Your task to perform on an android device: set the stopwatch Image 0: 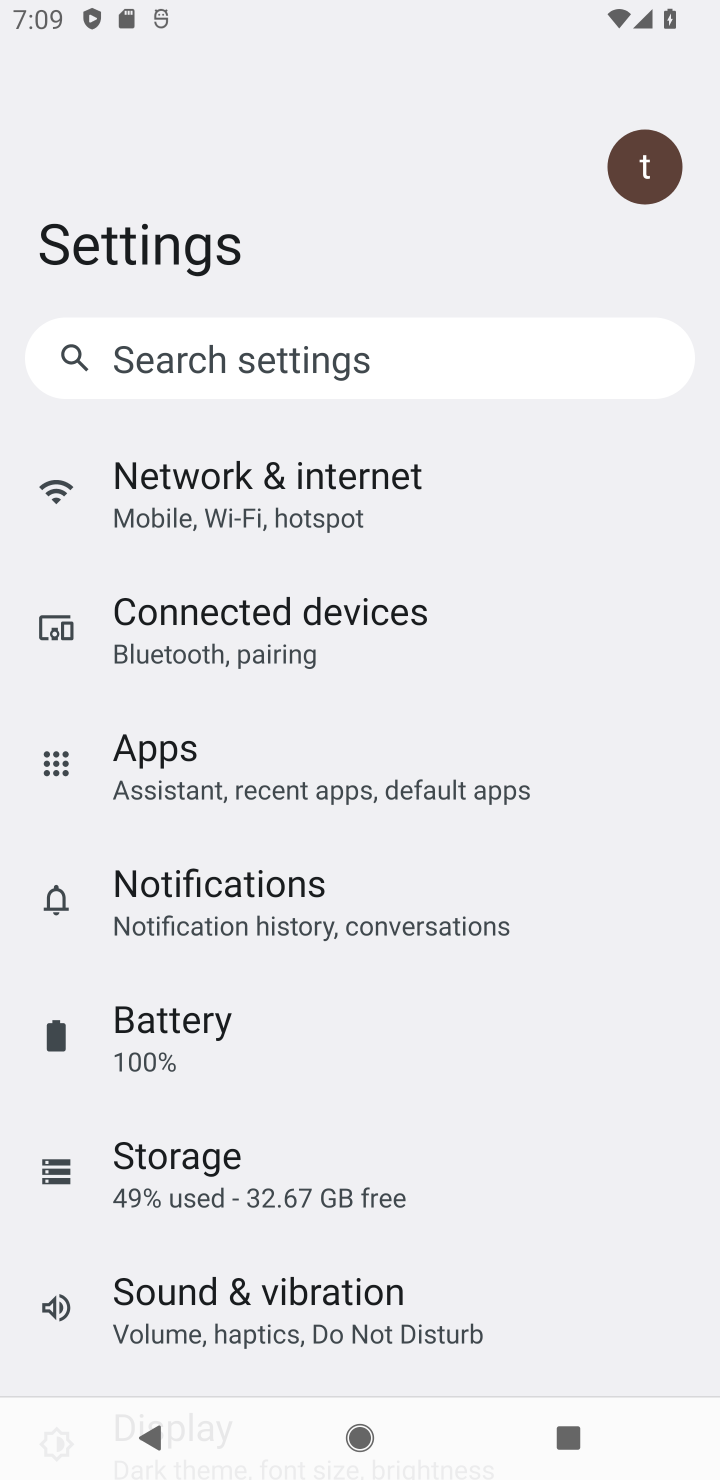
Step 0: press home button
Your task to perform on an android device: set the stopwatch Image 1: 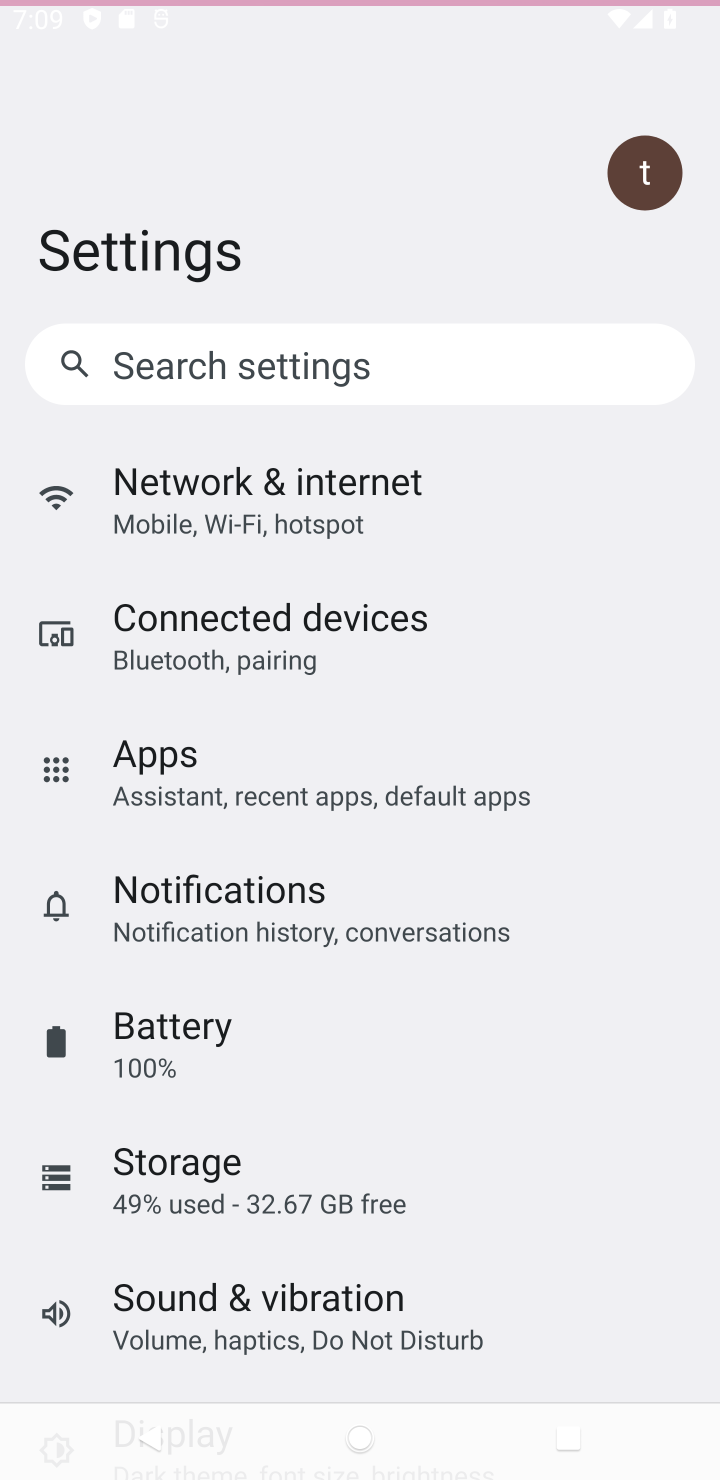
Step 1: drag from (504, 1191) to (482, 337)
Your task to perform on an android device: set the stopwatch Image 2: 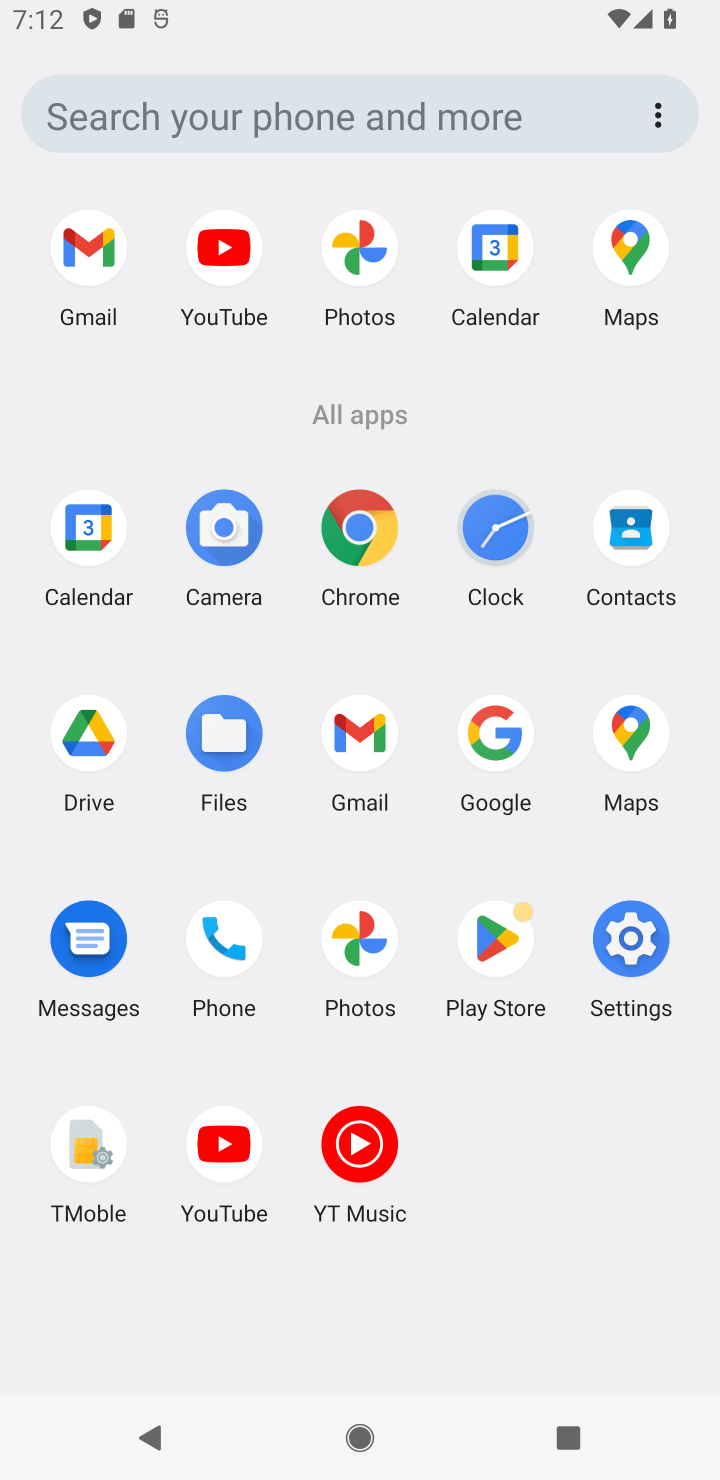
Step 2: click (482, 573)
Your task to perform on an android device: set the stopwatch Image 3: 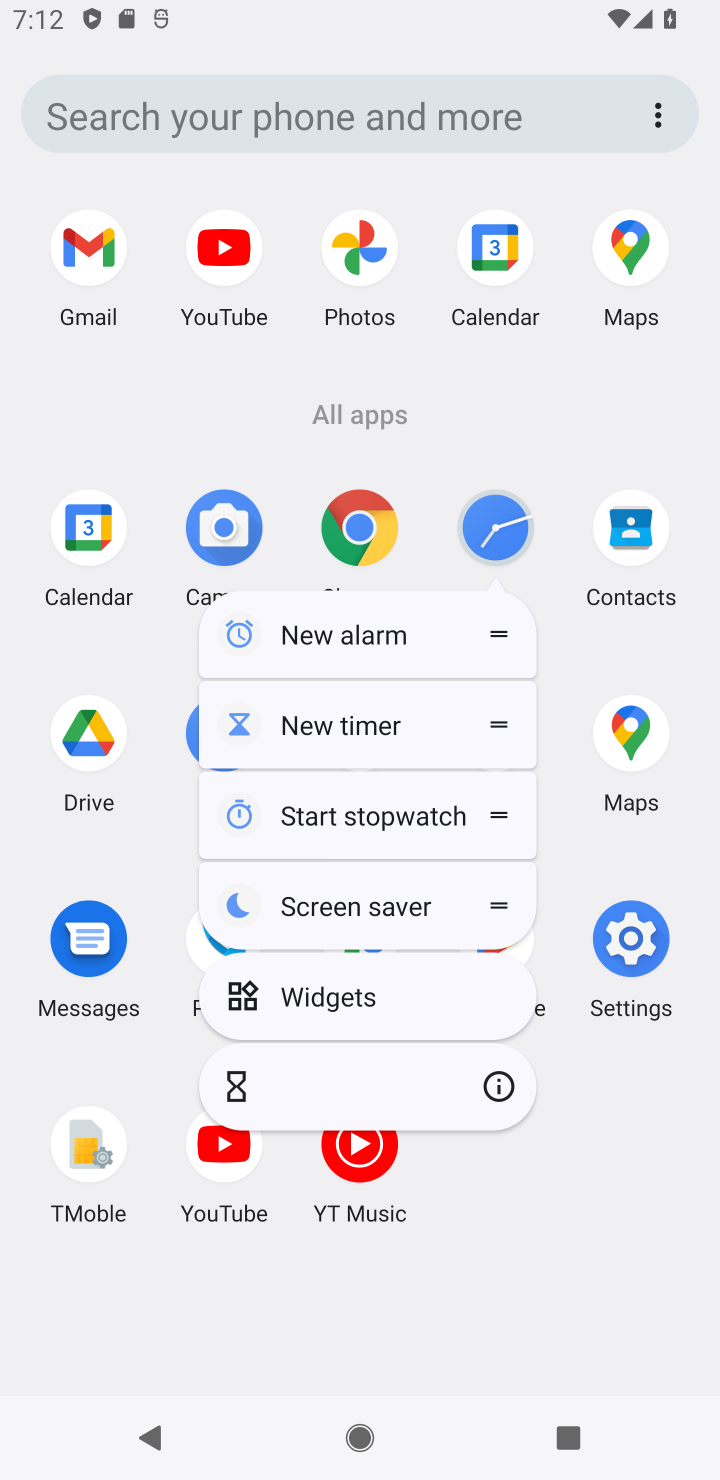
Step 3: click (504, 535)
Your task to perform on an android device: set the stopwatch Image 4: 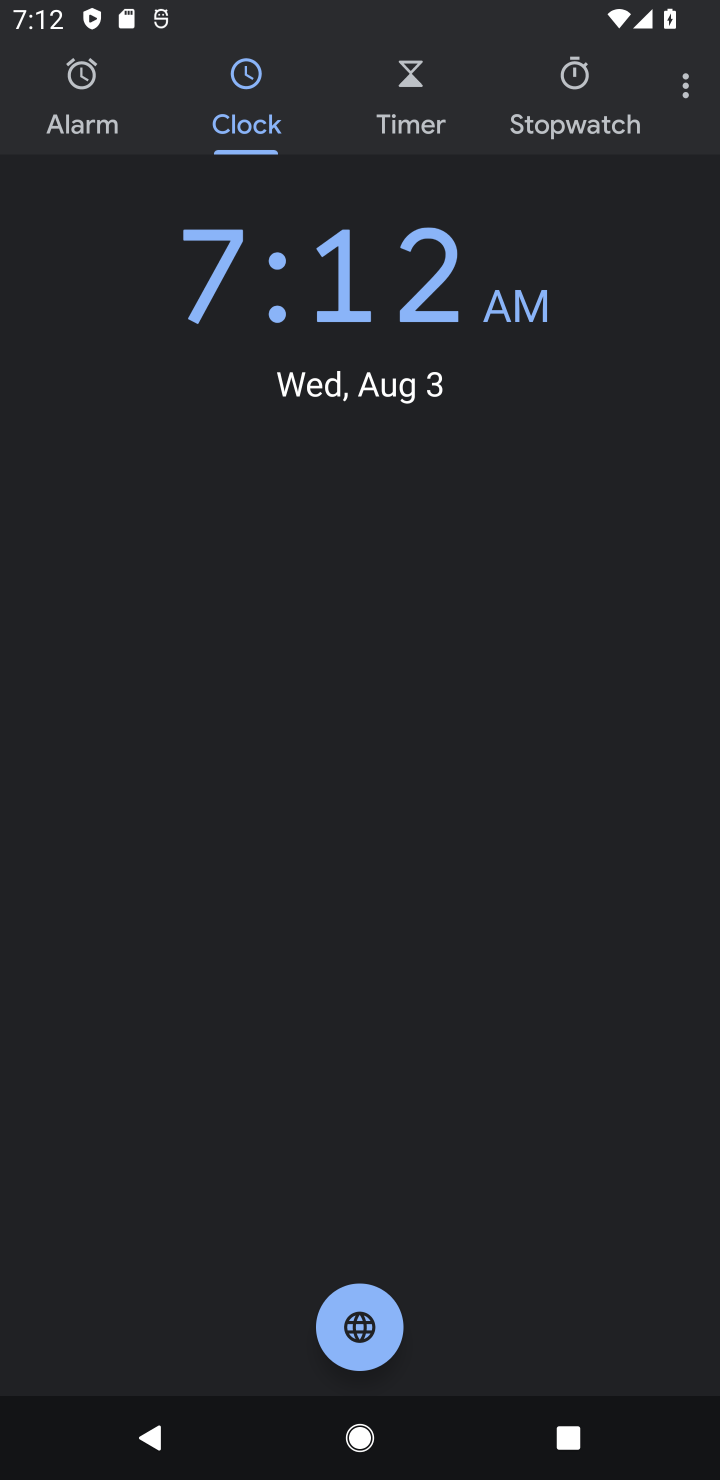
Step 4: click (699, 83)
Your task to perform on an android device: set the stopwatch Image 5: 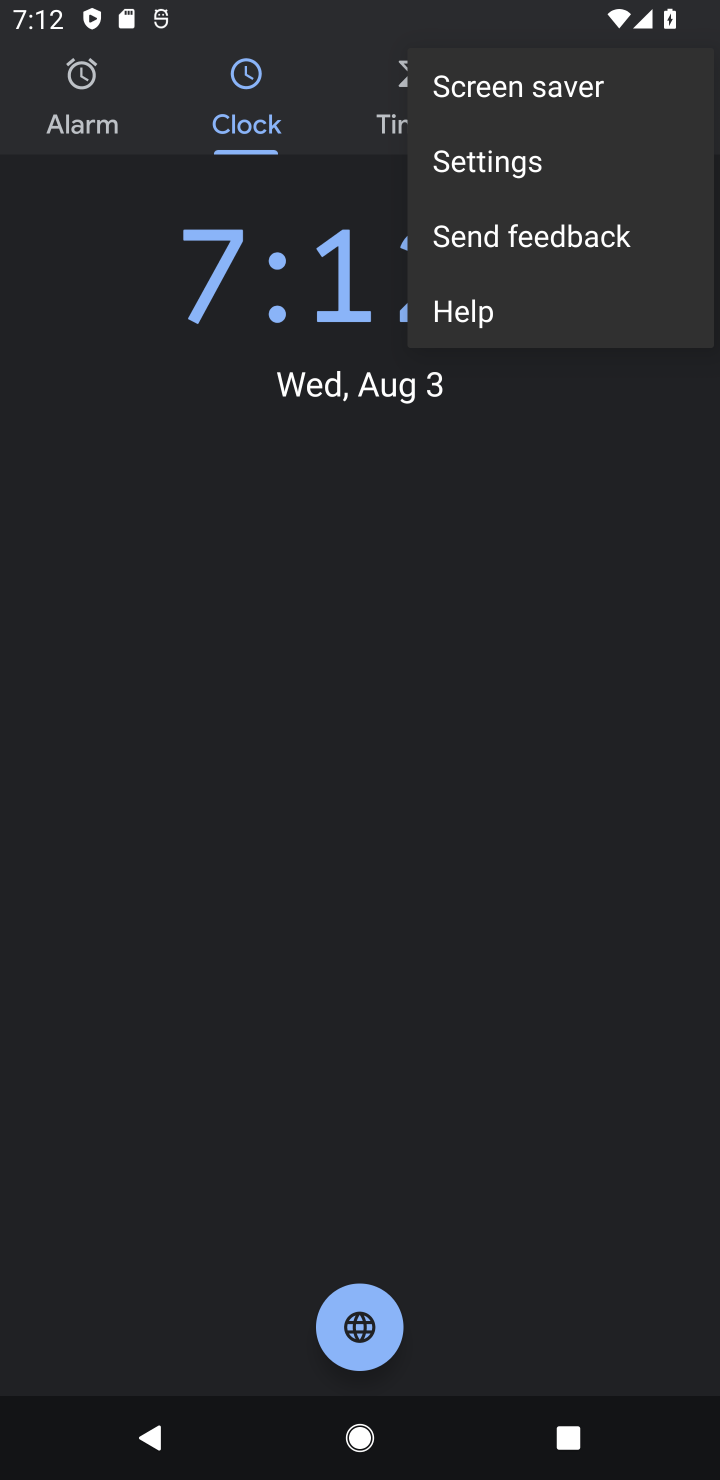
Step 5: click (539, 167)
Your task to perform on an android device: set the stopwatch Image 6: 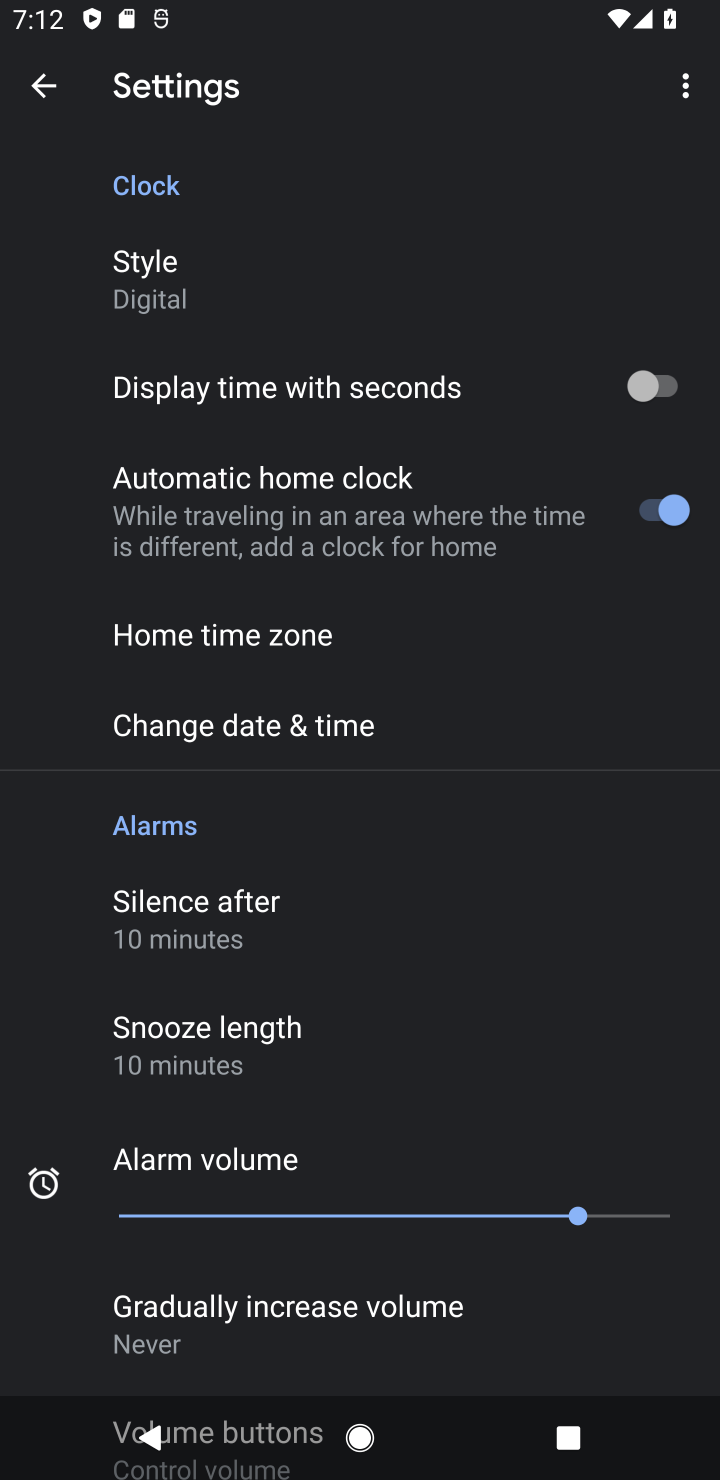
Step 6: click (70, 95)
Your task to perform on an android device: set the stopwatch Image 7: 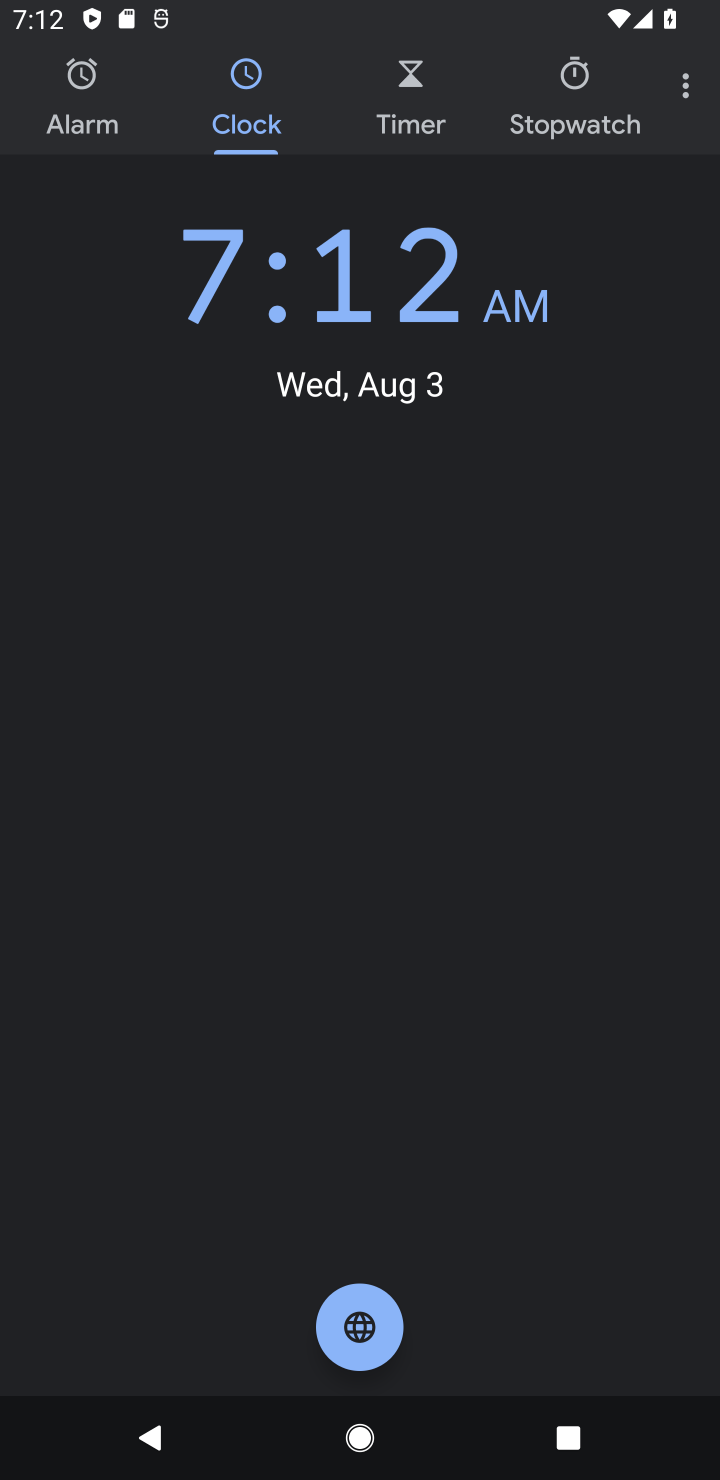
Step 7: click (517, 115)
Your task to perform on an android device: set the stopwatch Image 8: 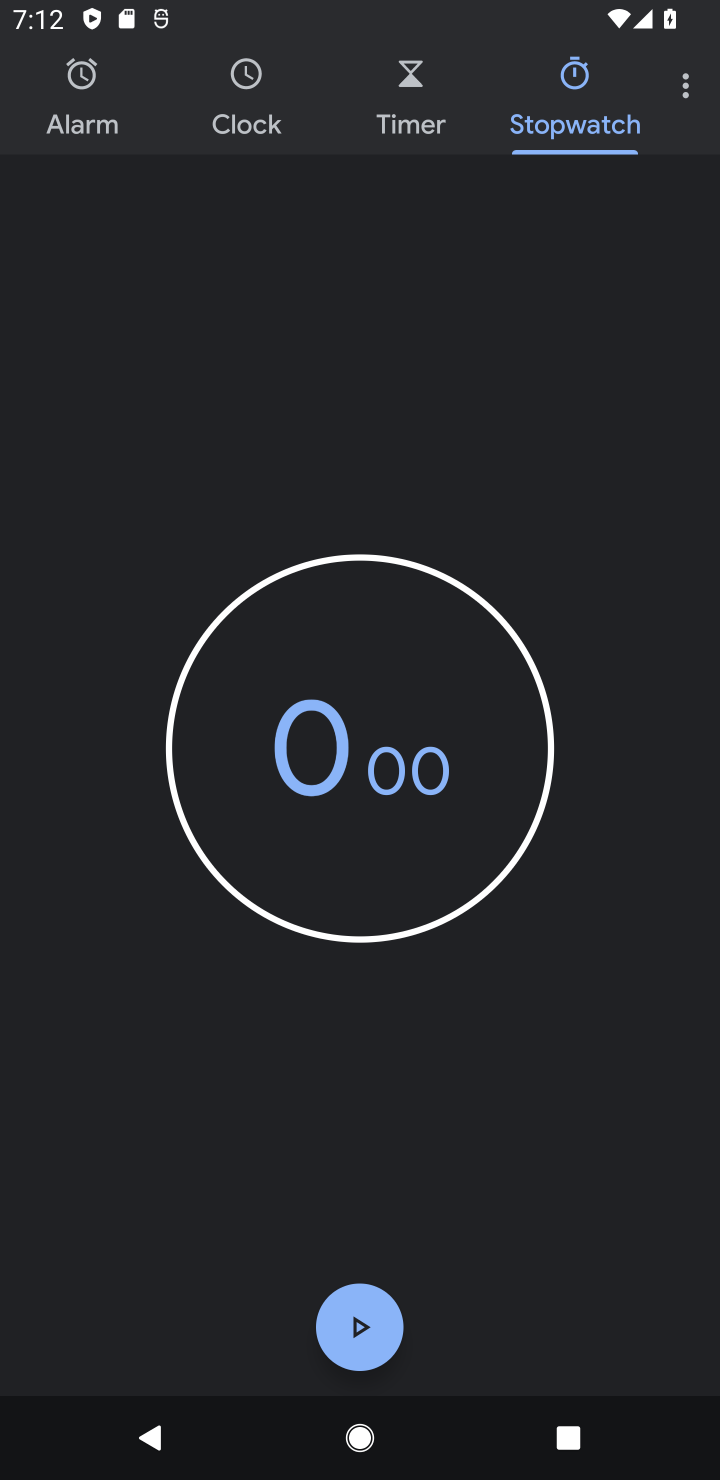
Step 8: click (374, 1303)
Your task to perform on an android device: set the stopwatch Image 9: 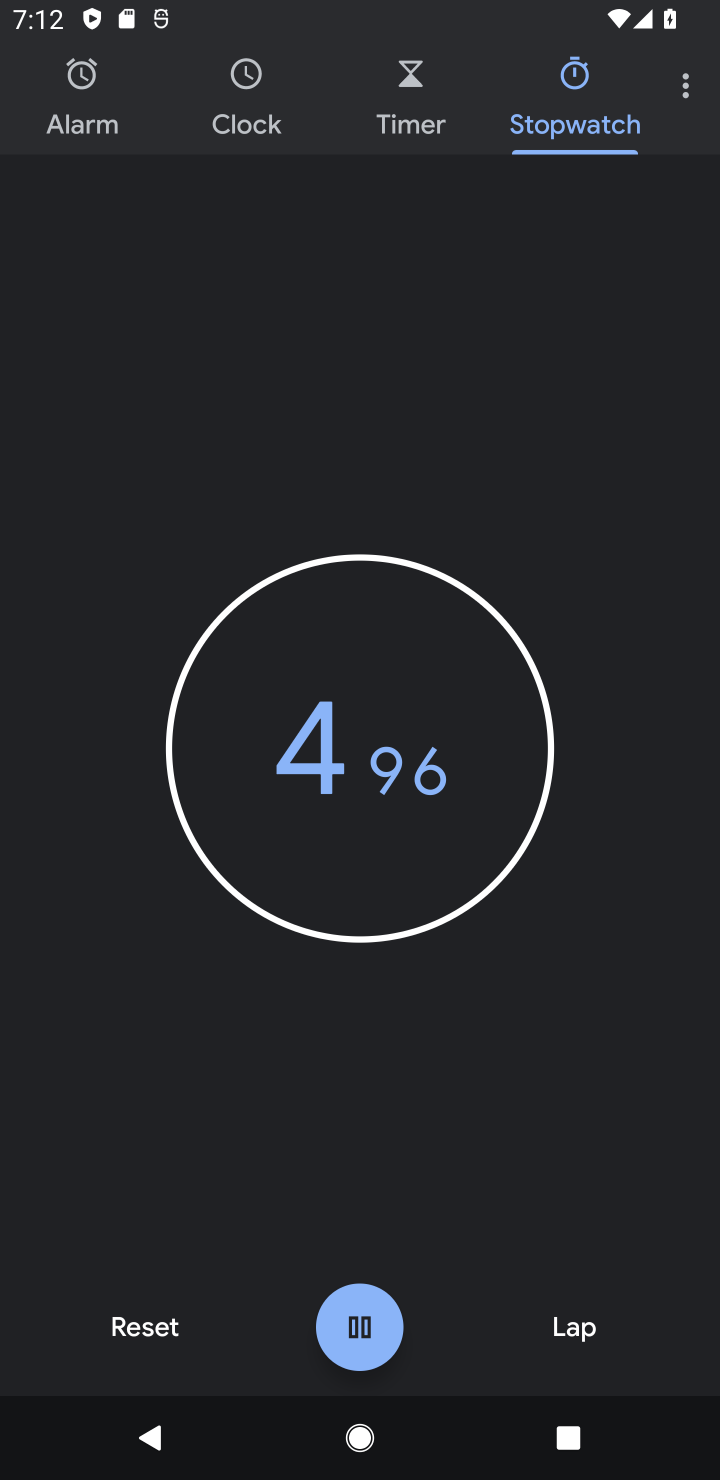
Step 9: task complete